Your task to perform on an android device: Go to Amazon Image 0: 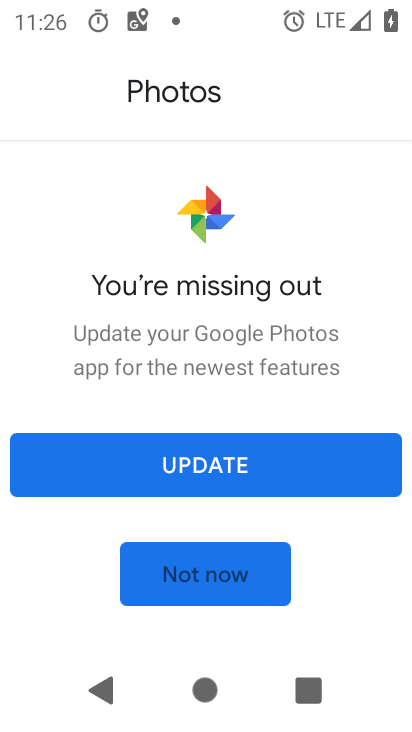
Step 0: press home button
Your task to perform on an android device: Go to Amazon Image 1: 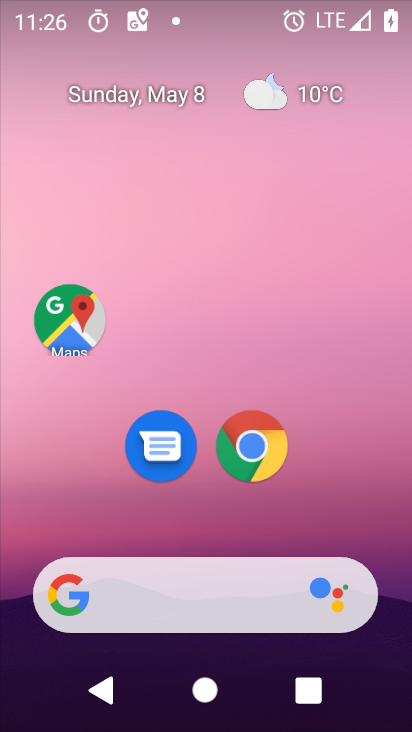
Step 1: click (258, 450)
Your task to perform on an android device: Go to Amazon Image 2: 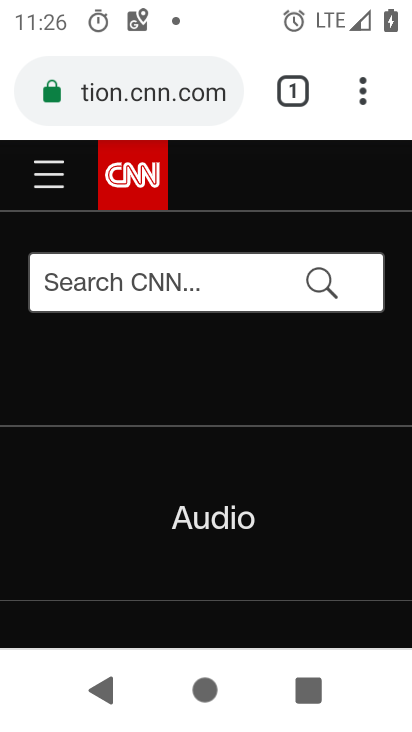
Step 2: click (110, 92)
Your task to perform on an android device: Go to Amazon Image 3: 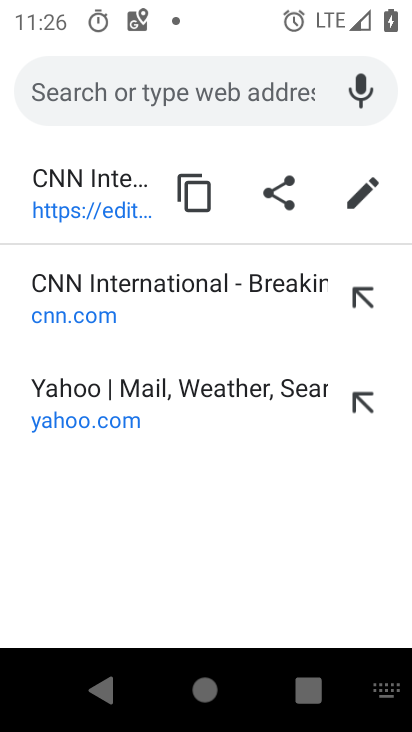
Step 3: type "amazon"
Your task to perform on an android device: Go to Amazon Image 4: 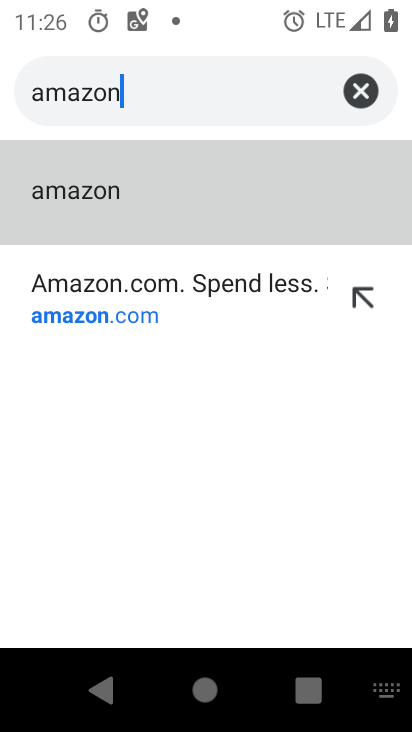
Step 4: click (85, 201)
Your task to perform on an android device: Go to Amazon Image 5: 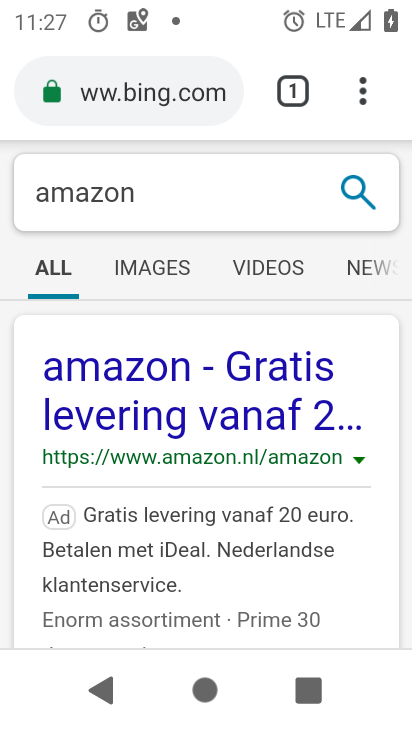
Step 5: click (145, 467)
Your task to perform on an android device: Go to Amazon Image 6: 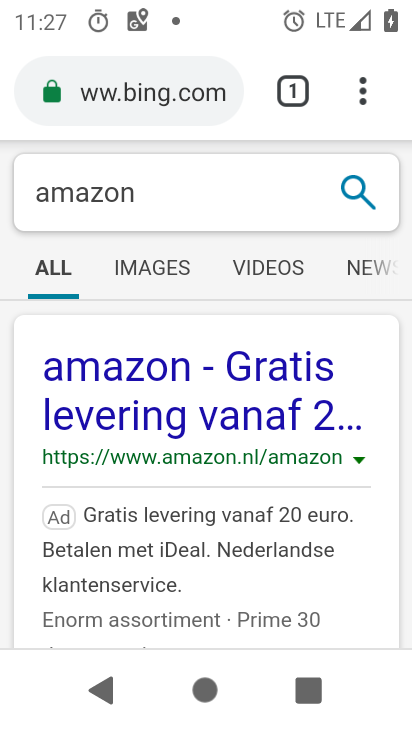
Step 6: drag from (204, 563) to (206, 266)
Your task to perform on an android device: Go to Amazon Image 7: 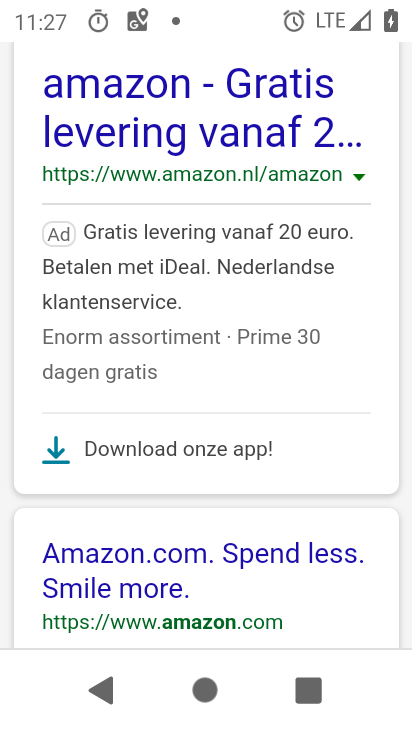
Step 7: click (132, 617)
Your task to perform on an android device: Go to Amazon Image 8: 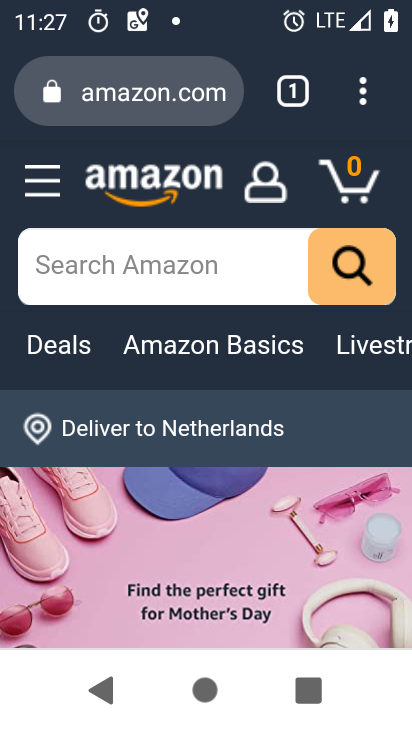
Step 8: task complete